Your task to perform on an android device: Do I have any events today? Image 0: 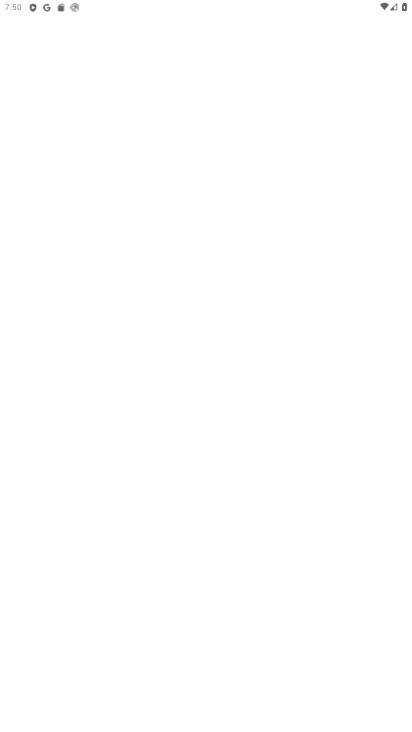
Step 0: press home button
Your task to perform on an android device: Do I have any events today? Image 1: 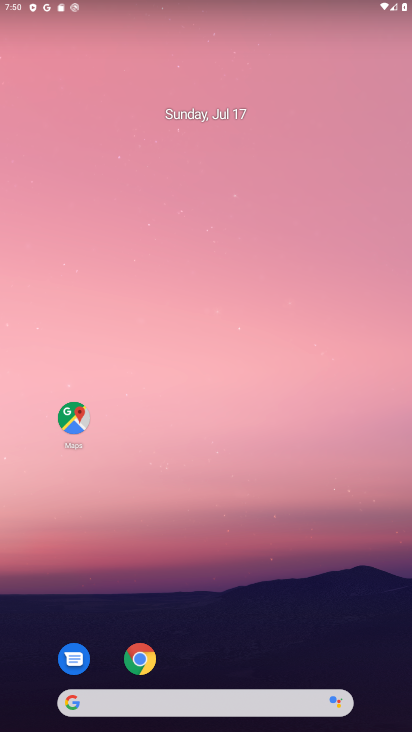
Step 1: drag from (236, 531) to (162, 267)
Your task to perform on an android device: Do I have any events today? Image 2: 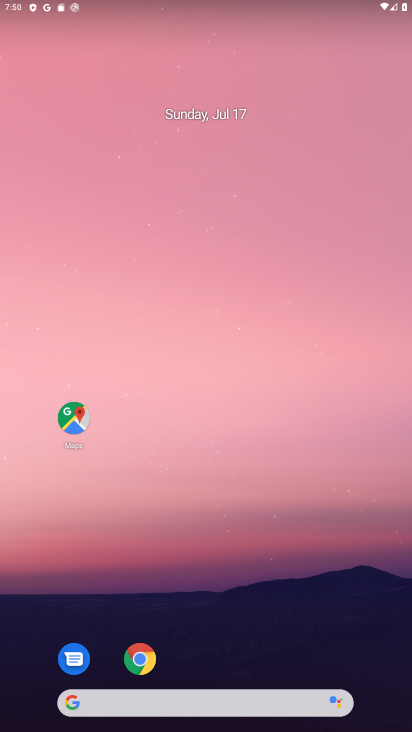
Step 2: drag from (229, 578) to (179, 161)
Your task to perform on an android device: Do I have any events today? Image 3: 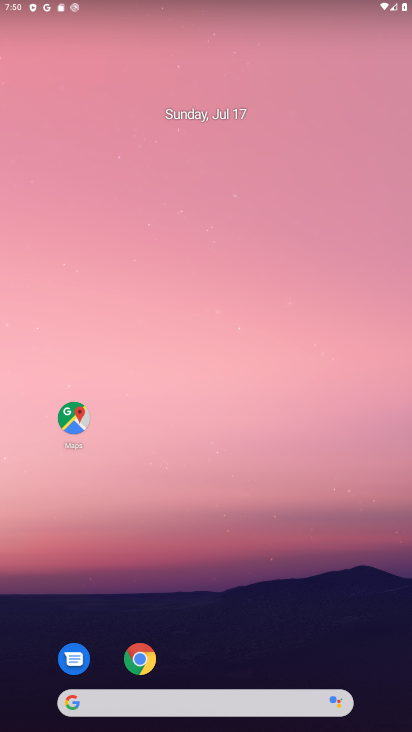
Step 3: drag from (257, 524) to (343, 136)
Your task to perform on an android device: Do I have any events today? Image 4: 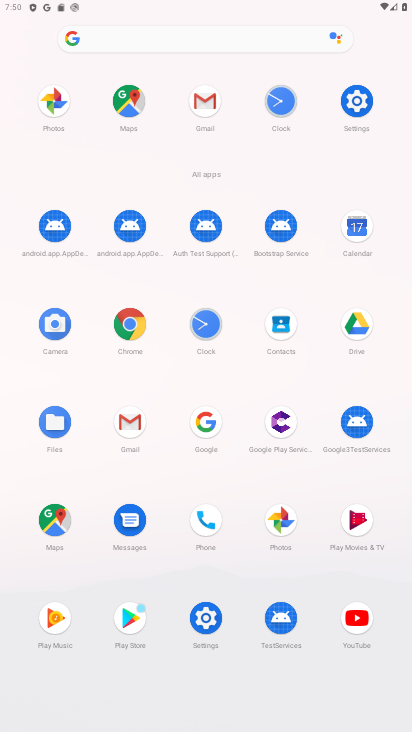
Step 4: click (361, 230)
Your task to perform on an android device: Do I have any events today? Image 5: 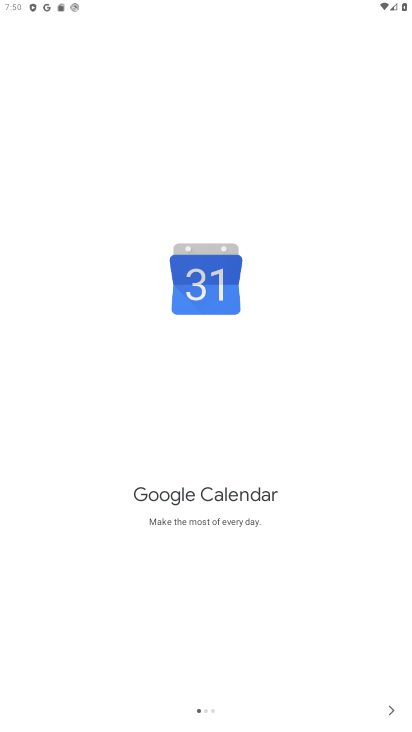
Step 5: click (393, 710)
Your task to perform on an android device: Do I have any events today? Image 6: 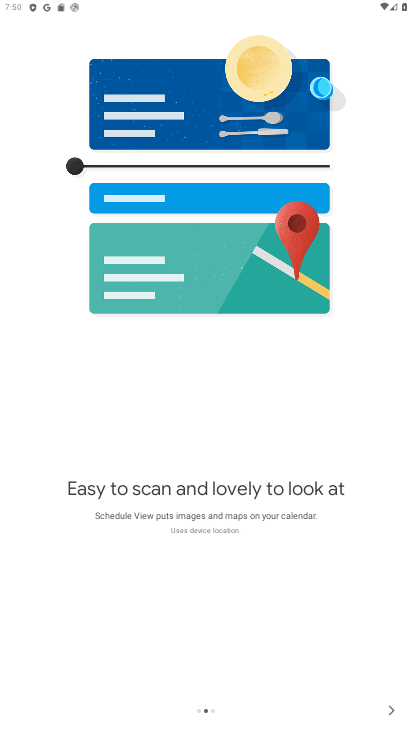
Step 6: click (393, 710)
Your task to perform on an android device: Do I have any events today? Image 7: 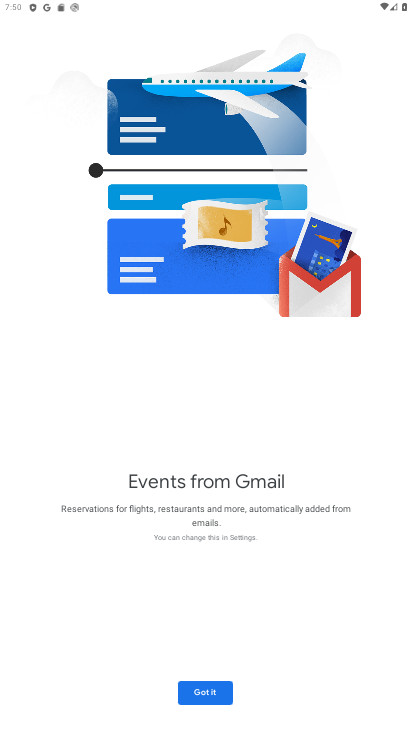
Step 7: click (195, 688)
Your task to perform on an android device: Do I have any events today? Image 8: 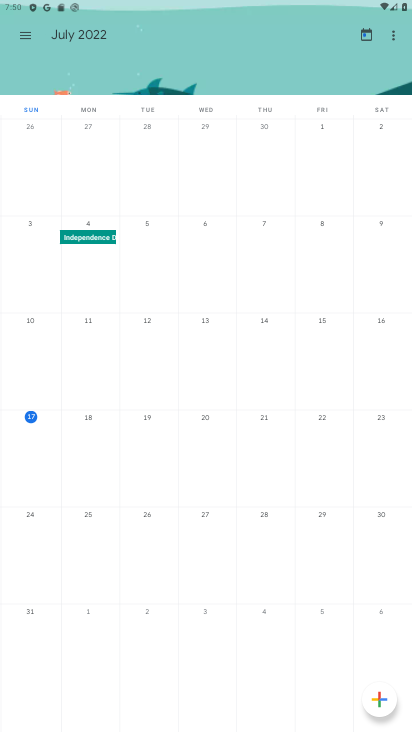
Step 8: task complete